Your task to perform on an android device: Search for Mexican restaurants on Maps Image 0: 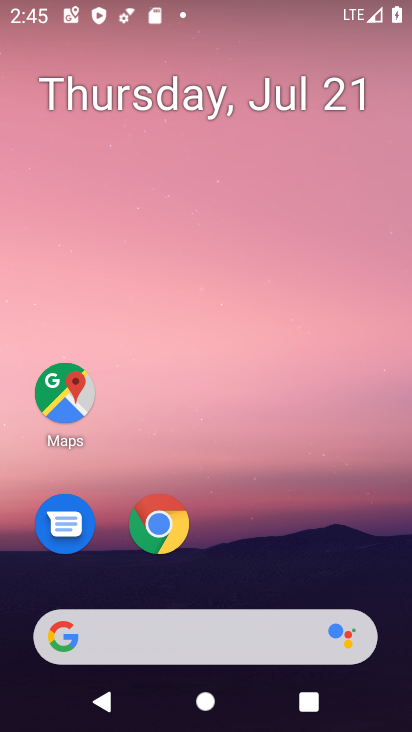
Step 0: click (44, 371)
Your task to perform on an android device: Search for Mexican restaurants on Maps Image 1: 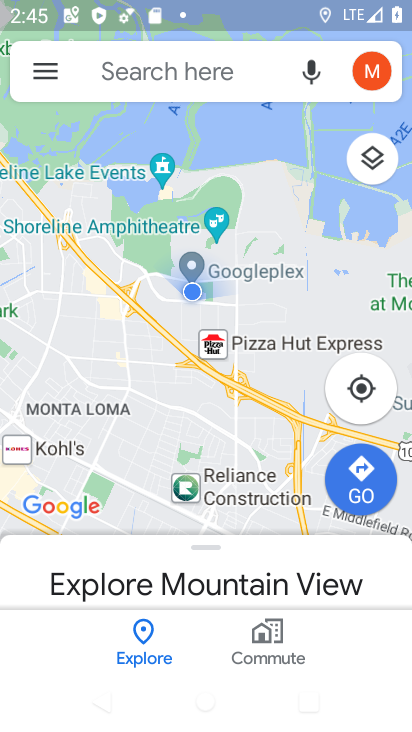
Step 1: click (153, 74)
Your task to perform on an android device: Search for Mexican restaurants on Maps Image 2: 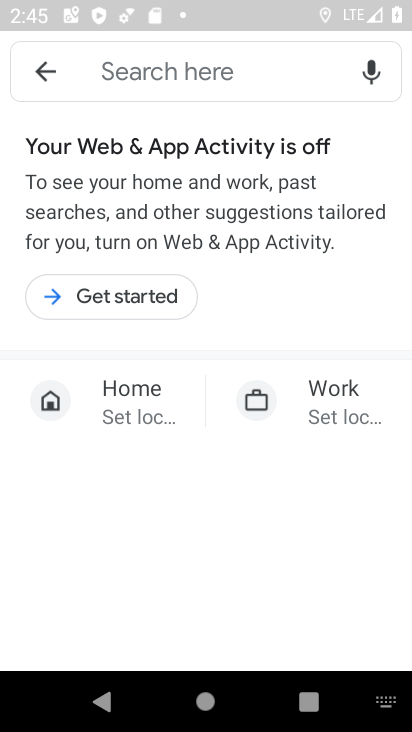
Step 2: click (170, 294)
Your task to perform on an android device: Search for Mexican restaurants on Maps Image 3: 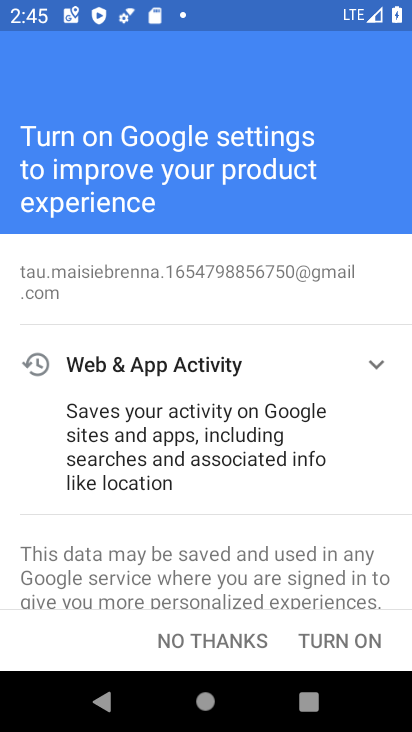
Step 3: click (332, 642)
Your task to perform on an android device: Search for Mexican restaurants on Maps Image 4: 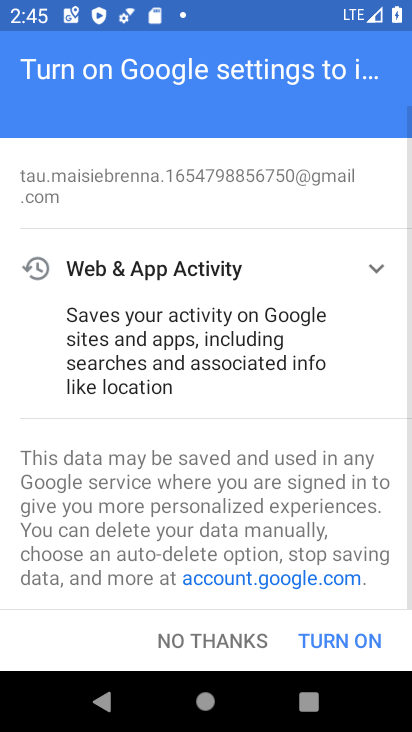
Step 4: click (332, 642)
Your task to perform on an android device: Search for Mexican restaurants on Maps Image 5: 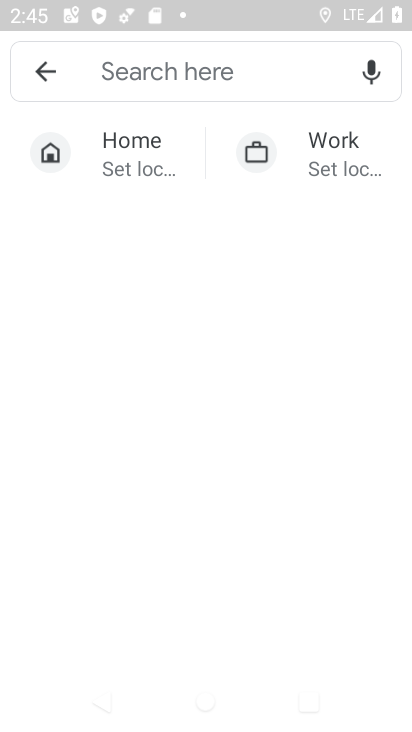
Step 5: click (152, 75)
Your task to perform on an android device: Search for Mexican restaurants on Maps Image 6: 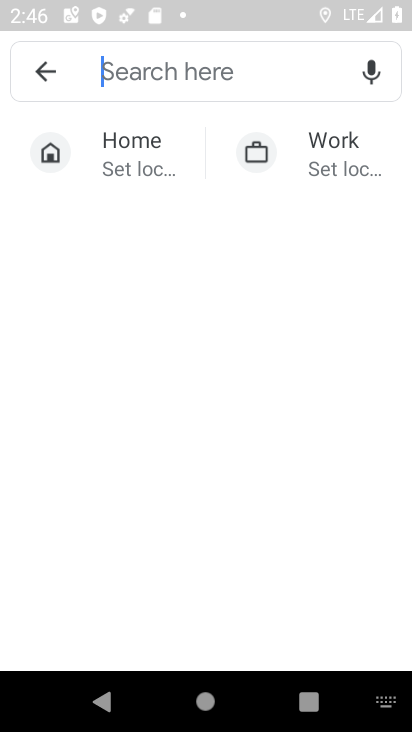
Step 6: type "Mexican Restaurants"
Your task to perform on an android device: Search for Mexican restaurants on Maps Image 7: 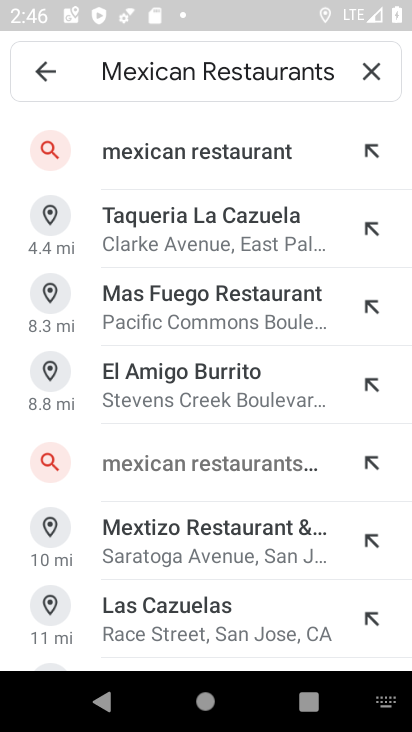
Step 7: click (283, 156)
Your task to perform on an android device: Search for Mexican restaurants on Maps Image 8: 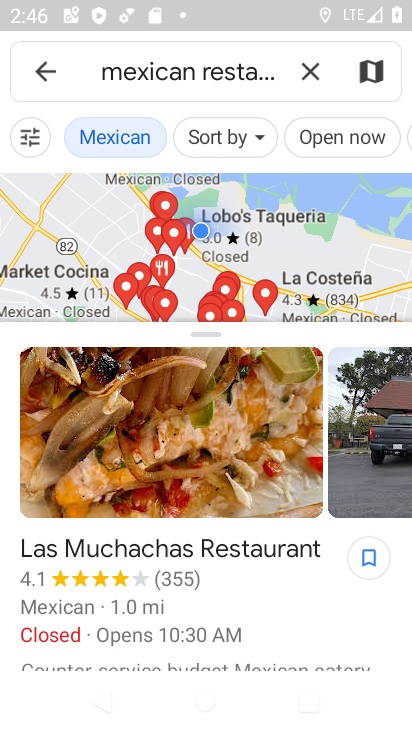
Step 8: task complete